Your task to perform on an android device: remove spam from my inbox in the gmail app Image 0: 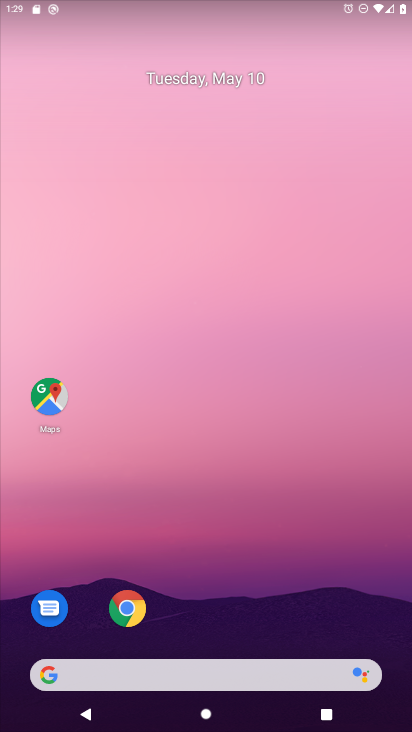
Step 0: drag from (273, 603) to (254, 218)
Your task to perform on an android device: remove spam from my inbox in the gmail app Image 1: 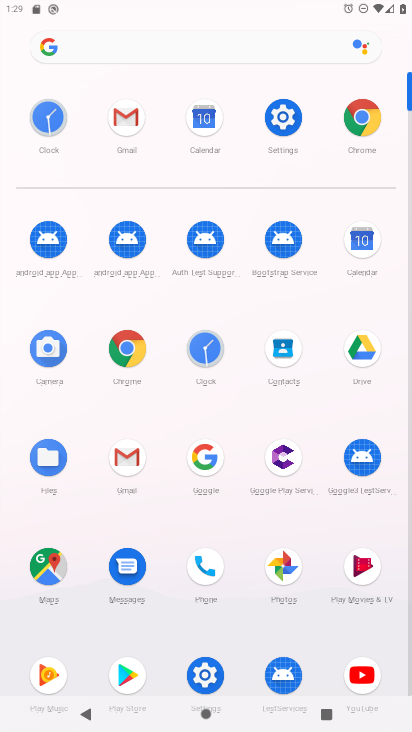
Step 1: click (118, 464)
Your task to perform on an android device: remove spam from my inbox in the gmail app Image 2: 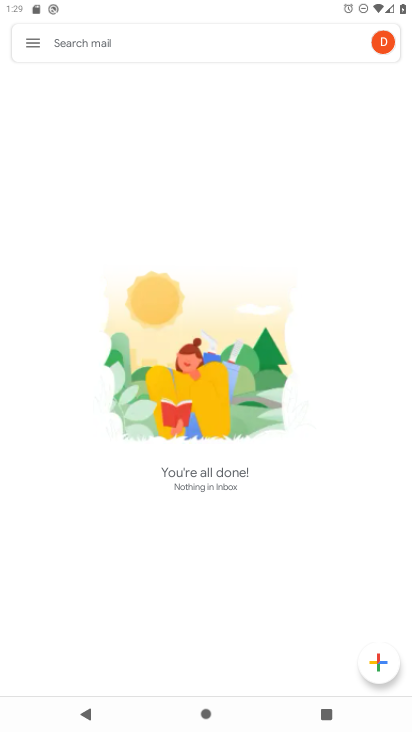
Step 2: click (16, 38)
Your task to perform on an android device: remove spam from my inbox in the gmail app Image 3: 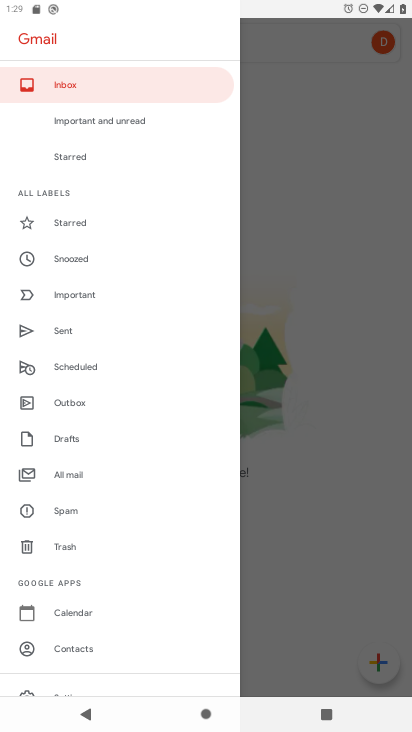
Step 3: click (91, 511)
Your task to perform on an android device: remove spam from my inbox in the gmail app Image 4: 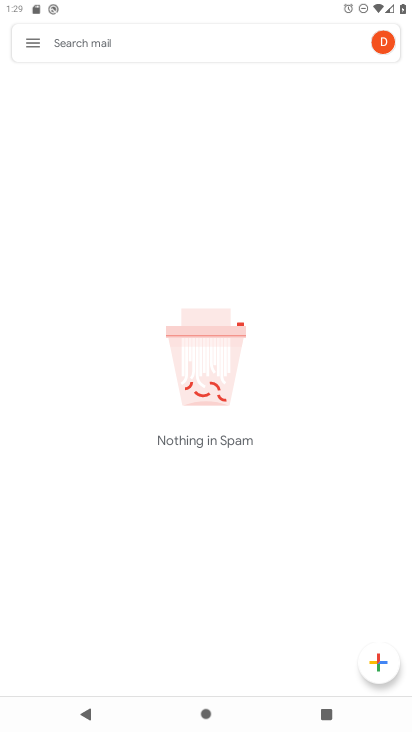
Step 4: task complete